Your task to perform on an android device: Go to notification settings Image 0: 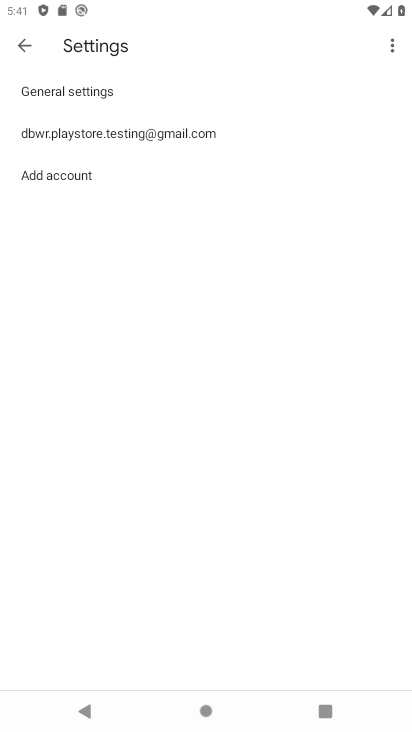
Step 0: press home button
Your task to perform on an android device: Go to notification settings Image 1: 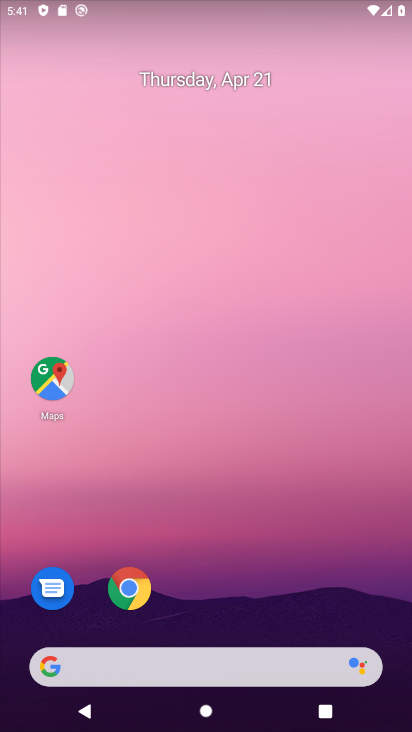
Step 1: drag from (269, 618) to (198, 255)
Your task to perform on an android device: Go to notification settings Image 2: 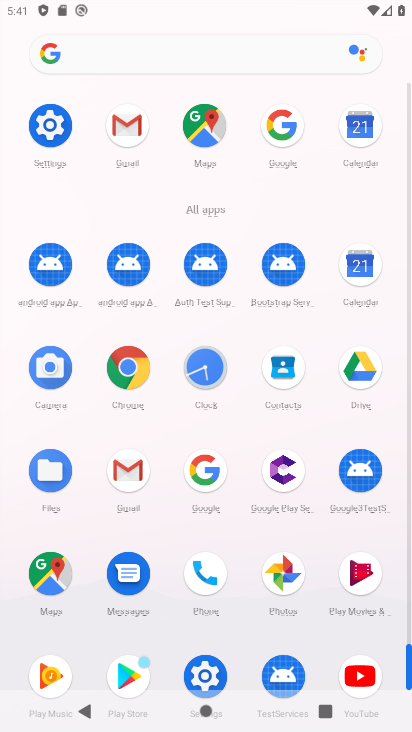
Step 2: click (209, 668)
Your task to perform on an android device: Go to notification settings Image 3: 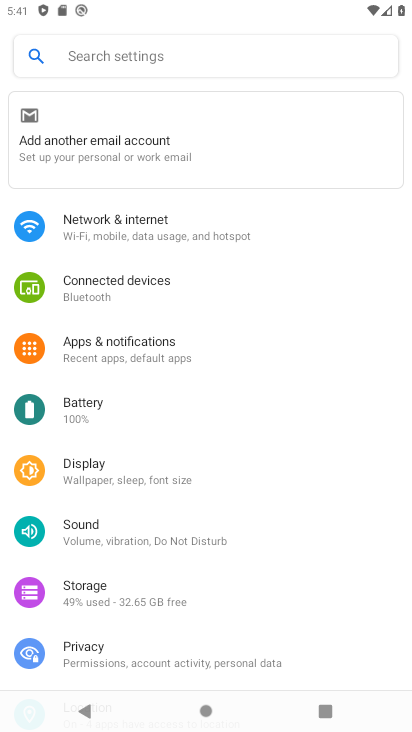
Step 3: click (172, 359)
Your task to perform on an android device: Go to notification settings Image 4: 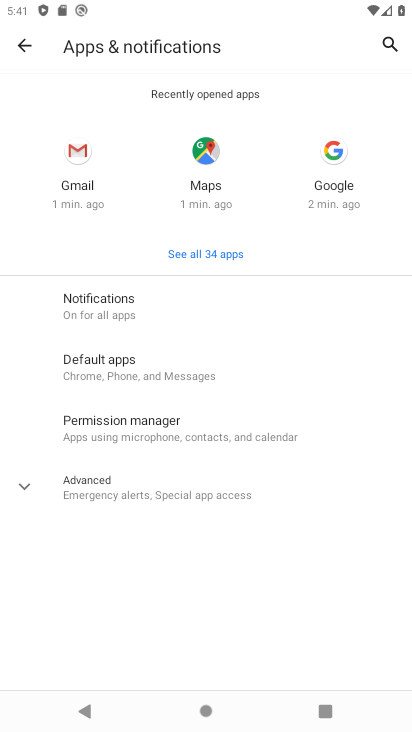
Step 4: click (114, 316)
Your task to perform on an android device: Go to notification settings Image 5: 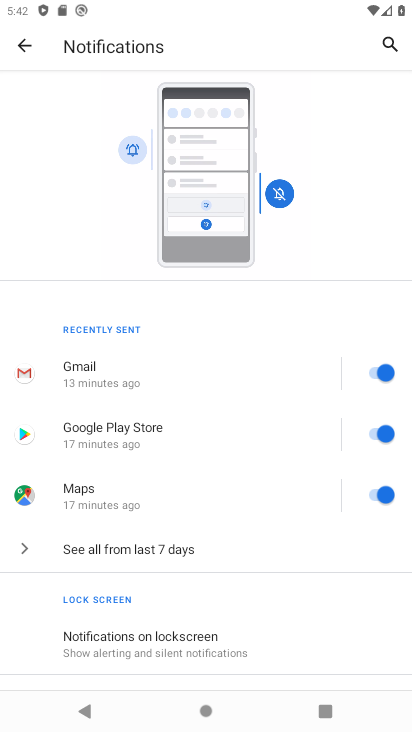
Step 5: task complete